Your task to perform on an android device: What's on my calendar tomorrow? Image 0: 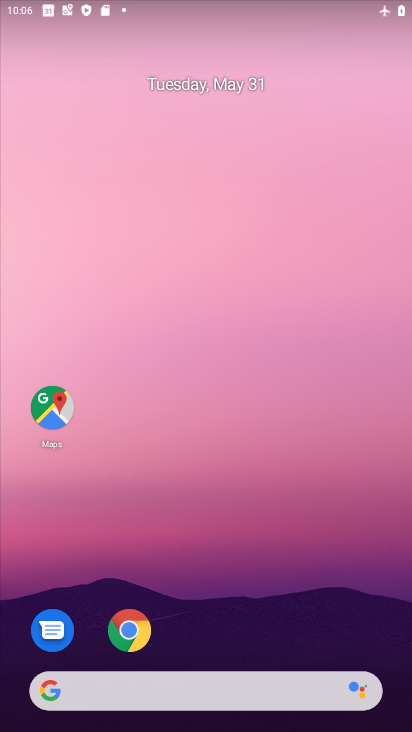
Step 0: drag from (157, 657) to (191, 259)
Your task to perform on an android device: What's on my calendar tomorrow? Image 1: 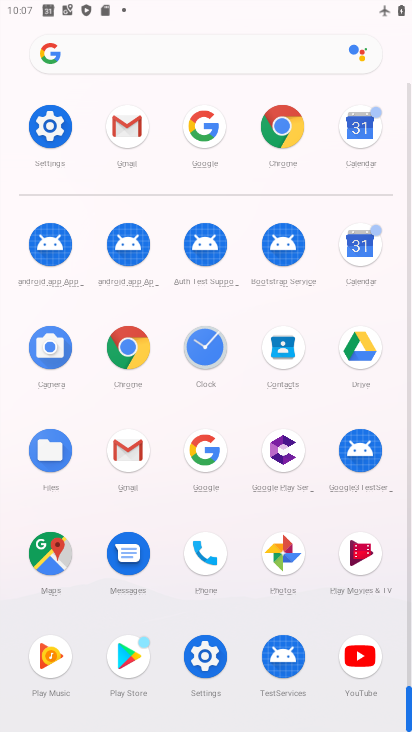
Step 1: click (373, 237)
Your task to perform on an android device: What's on my calendar tomorrow? Image 2: 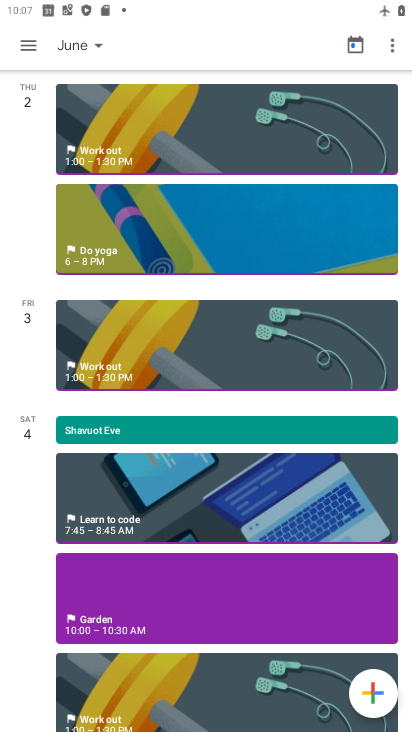
Step 2: task complete